Your task to perform on an android device: Do I have any events this weekend? Image 0: 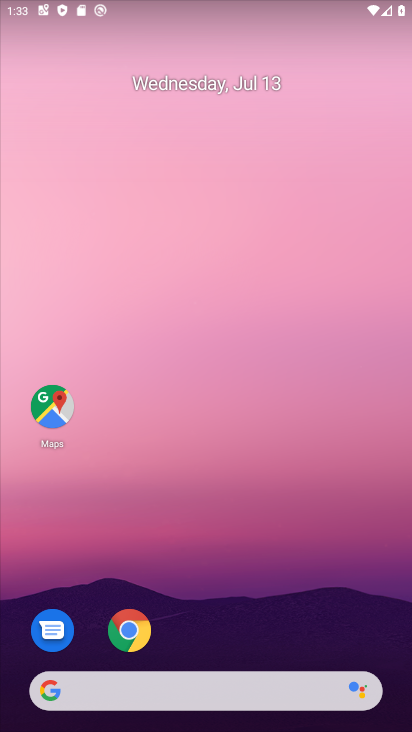
Step 0: drag from (321, 608) to (324, 140)
Your task to perform on an android device: Do I have any events this weekend? Image 1: 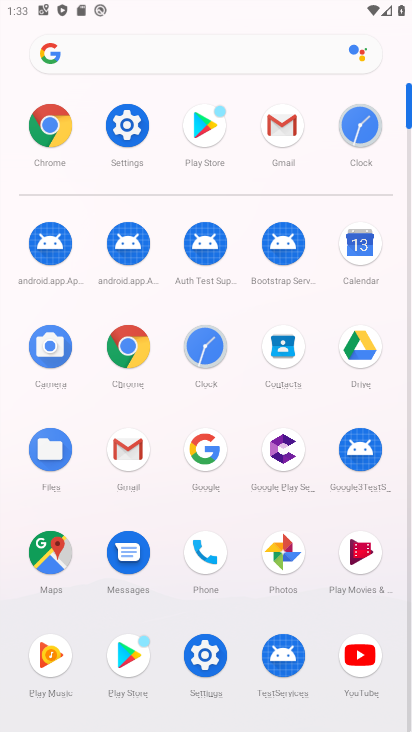
Step 1: click (365, 245)
Your task to perform on an android device: Do I have any events this weekend? Image 2: 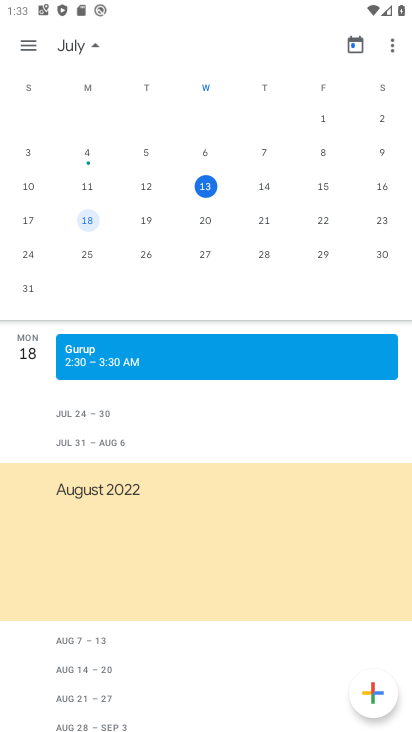
Step 2: click (211, 183)
Your task to perform on an android device: Do I have any events this weekend? Image 3: 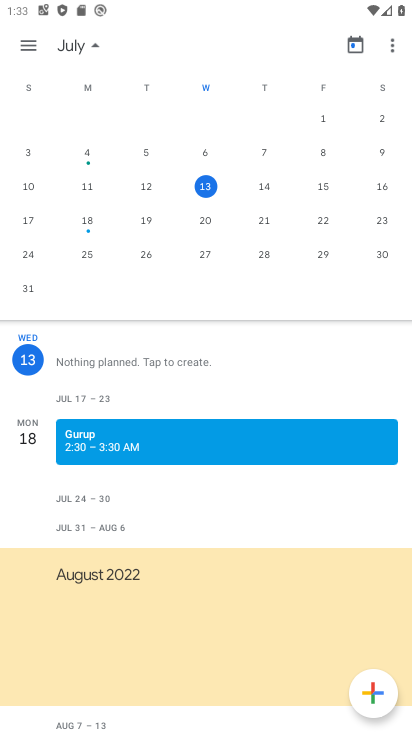
Step 3: task complete